Your task to perform on an android device: Open CNN.com Image 0: 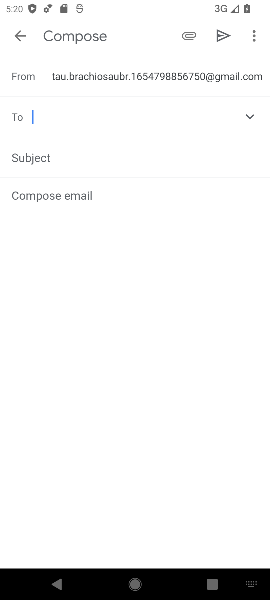
Step 0: press home button
Your task to perform on an android device: Open CNN.com Image 1: 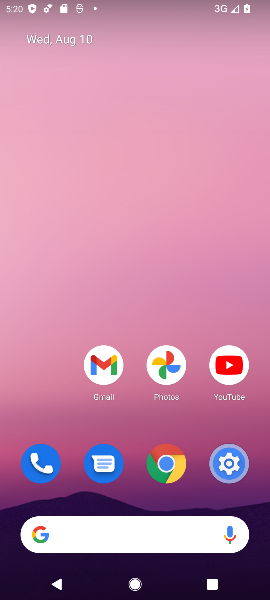
Step 1: click (163, 457)
Your task to perform on an android device: Open CNN.com Image 2: 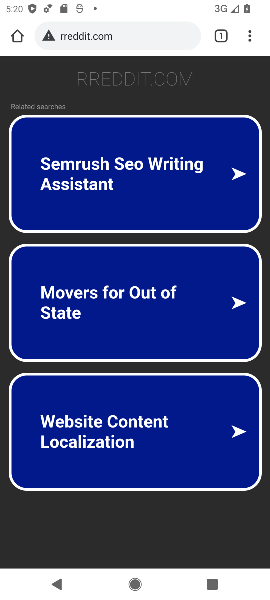
Step 2: click (245, 37)
Your task to perform on an android device: Open CNN.com Image 3: 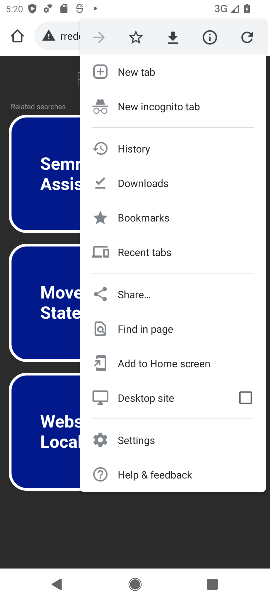
Step 3: click (133, 69)
Your task to perform on an android device: Open CNN.com Image 4: 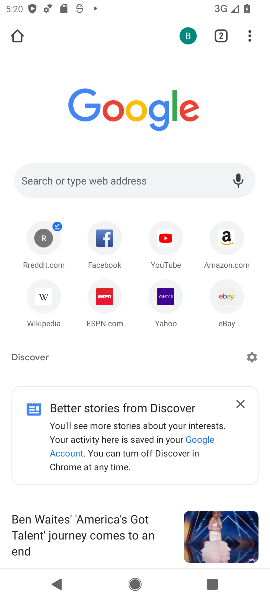
Step 4: click (118, 182)
Your task to perform on an android device: Open CNN.com Image 5: 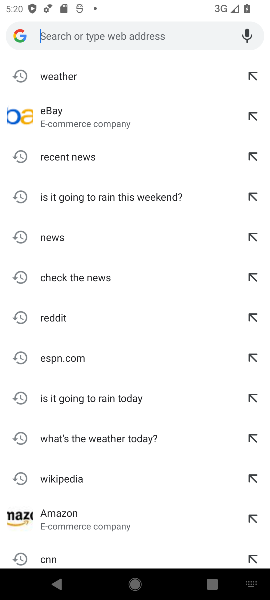
Step 5: click (53, 559)
Your task to perform on an android device: Open CNN.com Image 6: 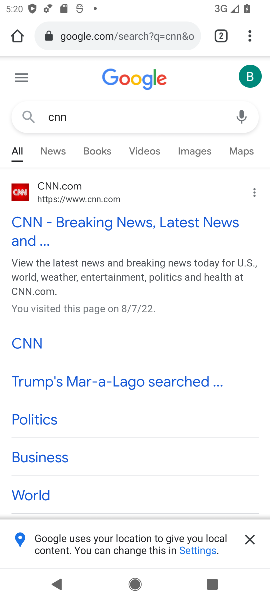
Step 6: click (88, 218)
Your task to perform on an android device: Open CNN.com Image 7: 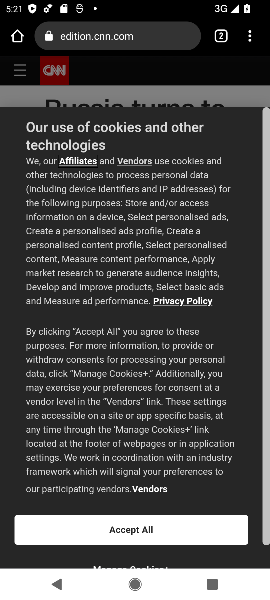
Step 7: click (153, 525)
Your task to perform on an android device: Open CNN.com Image 8: 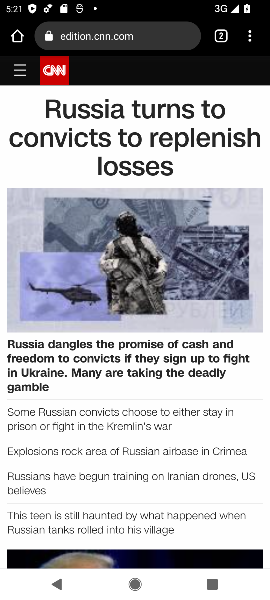
Step 8: task complete